Your task to perform on an android device: turn off translation in the chrome app Image 0: 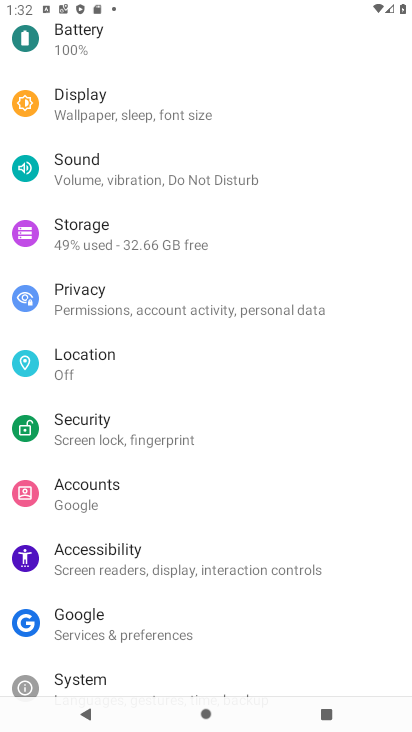
Step 0: press home button
Your task to perform on an android device: turn off translation in the chrome app Image 1: 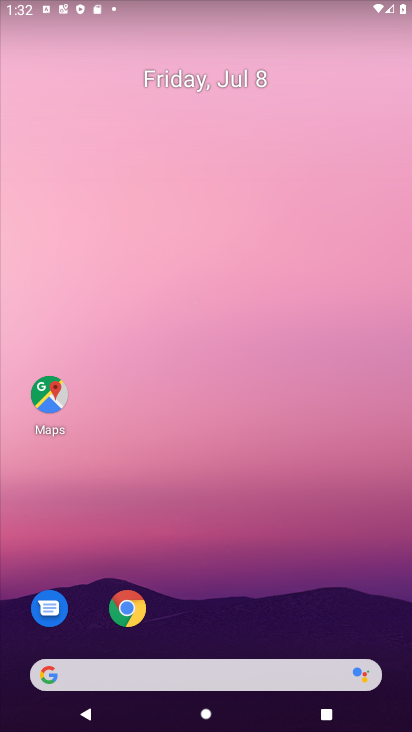
Step 1: click (129, 607)
Your task to perform on an android device: turn off translation in the chrome app Image 2: 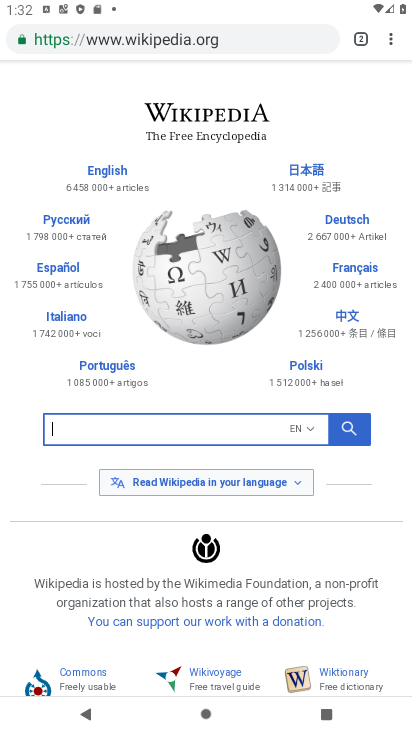
Step 2: click (390, 41)
Your task to perform on an android device: turn off translation in the chrome app Image 3: 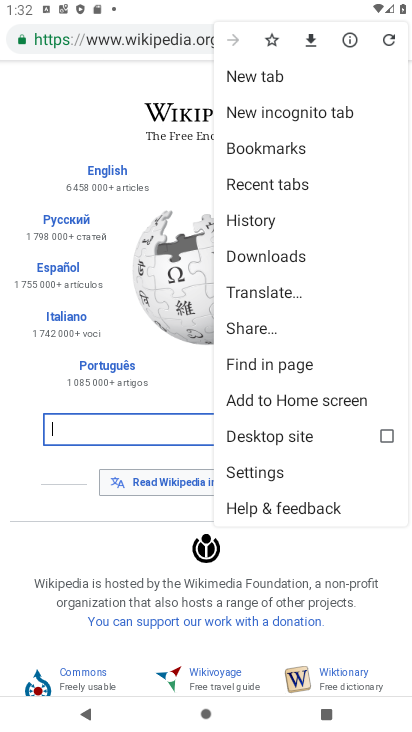
Step 3: click (254, 476)
Your task to perform on an android device: turn off translation in the chrome app Image 4: 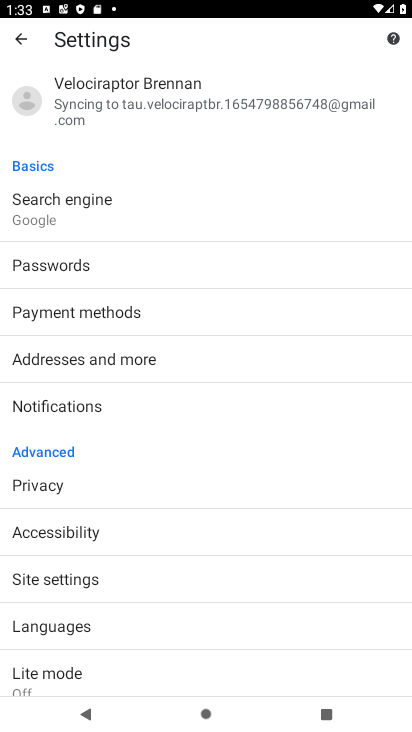
Step 4: click (58, 629)
Your task to perform on an android device: turn off translation in the chrome app Image 5: 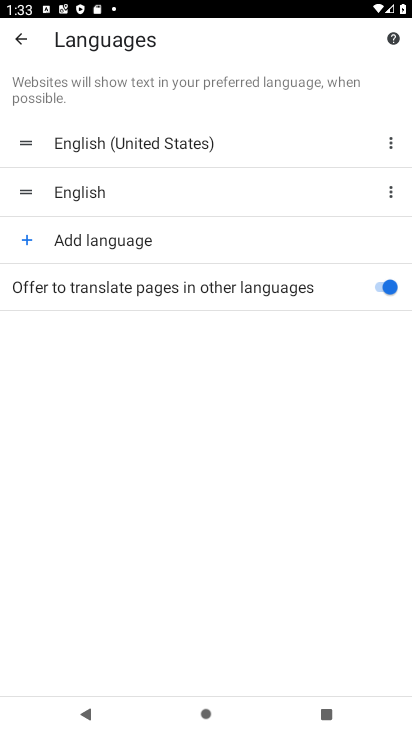
Step 5: click (376, 287)
Your task to perform on an android device: turn off translation in the chrome app Image 6: 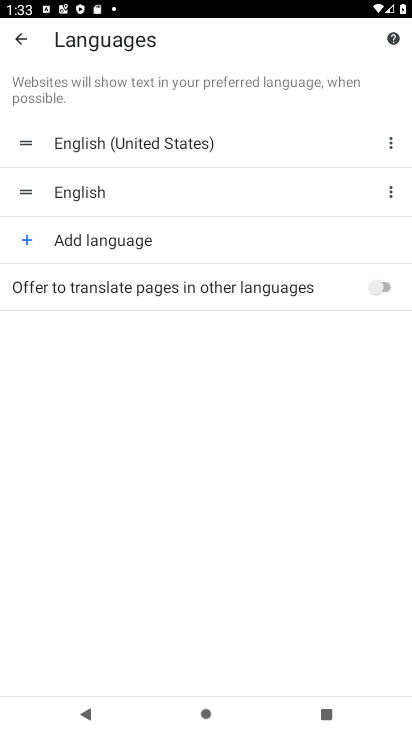
Step 6: task complete